Your task to perform on an android device: turn on javascript in the chrome app Image 0: 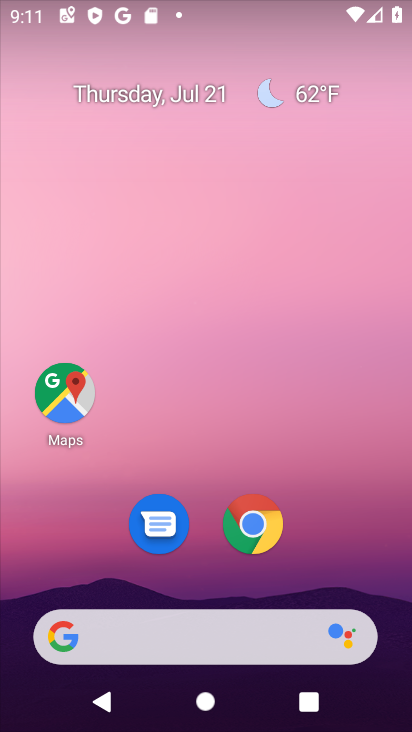
Step 0: click (246, 549)
Your task to perform on an android device: turn on javascript in the chrome app Image 1: 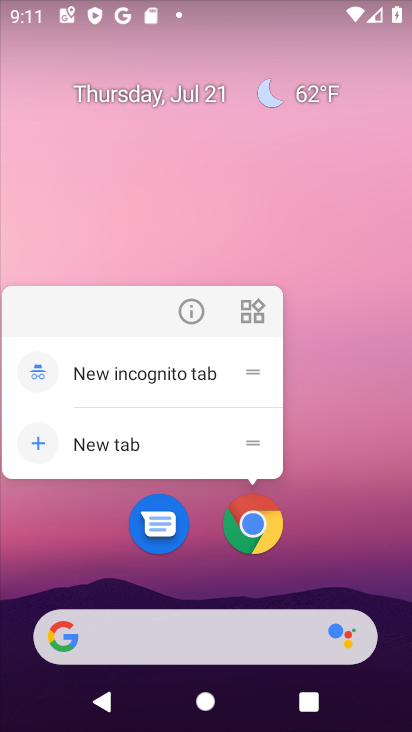
Step 1: click (259, 530)
Your task to perform on an android device: turn on javascript in the chrome app Image 2: 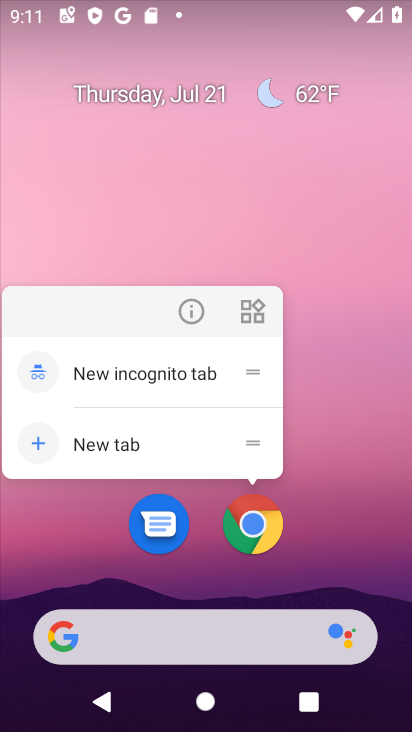
Step 2: click (259, 529)
Your task to perform on an android device: turn on javascript in the chrome app Image 3: 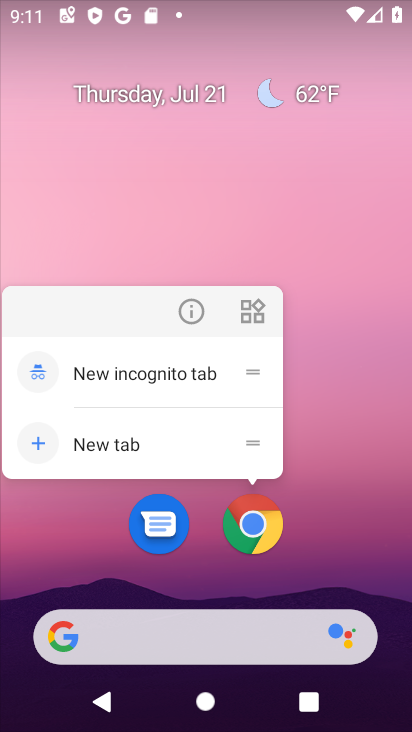
Step 3: click (259, 530)
Your task to perform on an android device: turn on javascript in the chrome app Image 4: 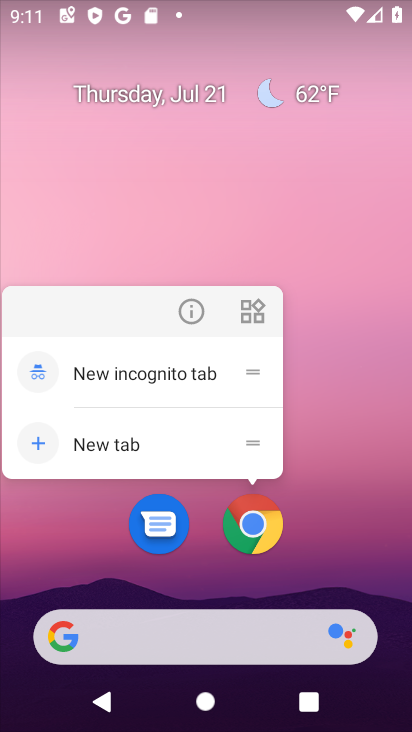
Step 4: click (250, 532)
Your task to perform on an android device: turn on javascript in the chrome app Image 5: 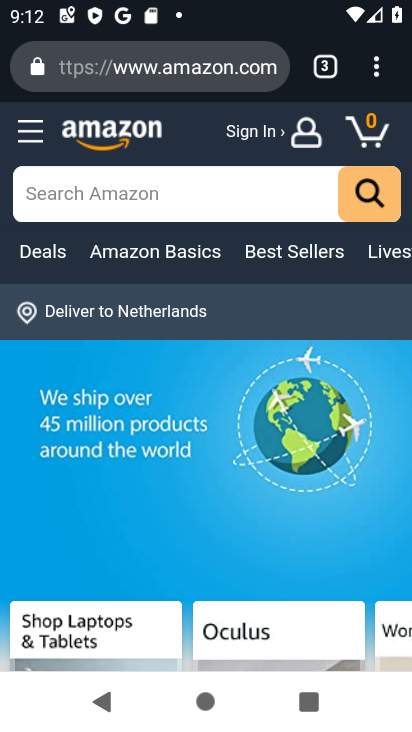
Step 5: drag from (378, 69) to (240, 535)
Your task to perform on an android device: turn on javascript in the chrome app Image 6: 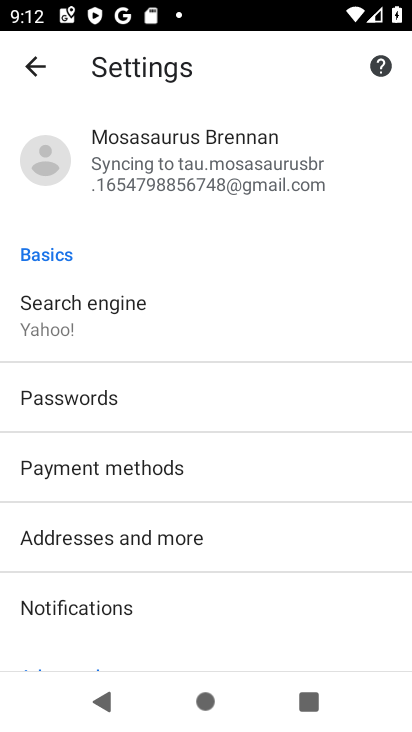
Step 6: drag from (209, 615) to (327, 223)
Your task to perform on an android device: turn on javascript in the chrome app Image 7: 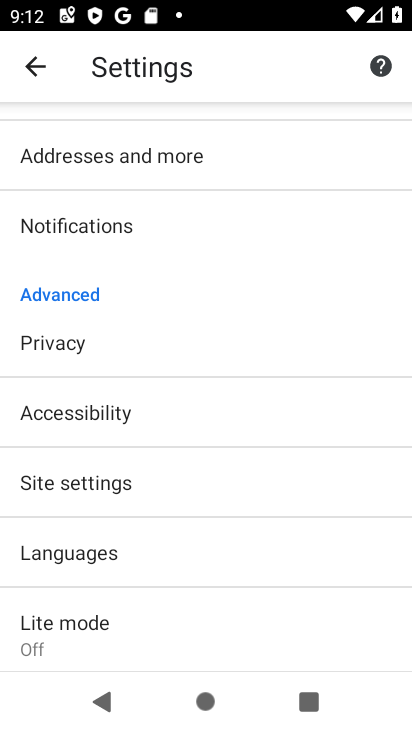
Step 7: click (111, 482)
Your task to perform on an android device: turn on javascript in the chrome app Image 8: 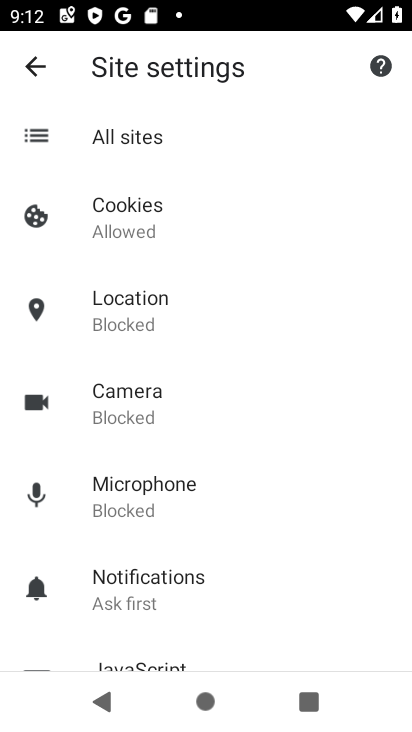
Step 8: drag from (227, 559) to (299, 223)
Your task to perform on an android device: turn on javascript in the chrome app Image 9: 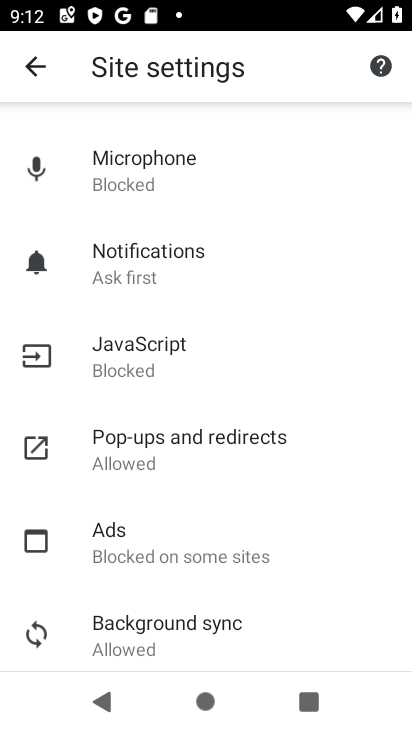
Step 9: click (174, 339)
Your task to perform on an android device: turn on javascript in the chrome app Image 10: 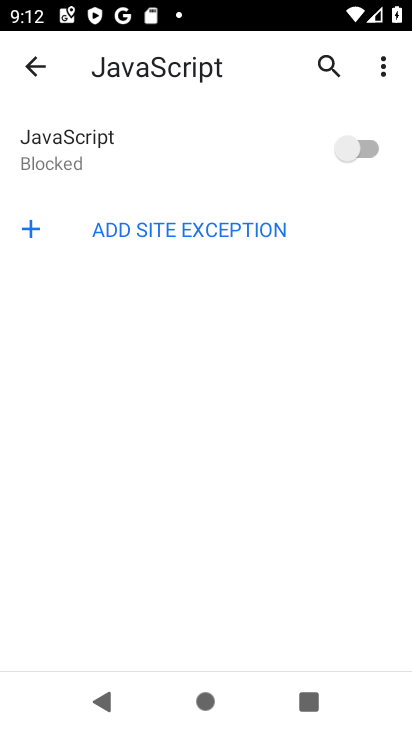
Step 10: click (368, 145)
Your task to perform on an android device: turn on javascript in the chrome app Image 11: 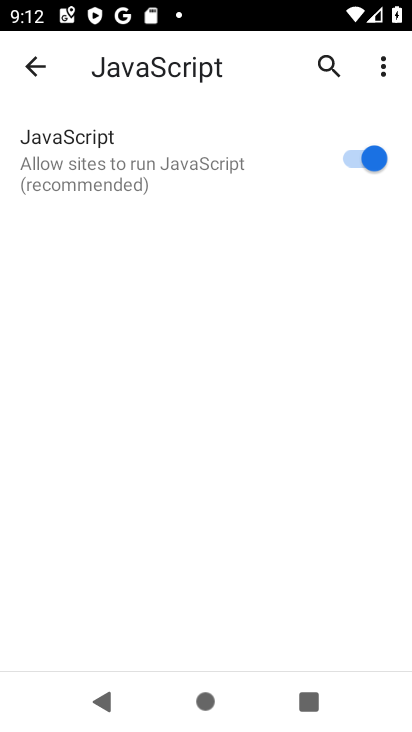
Step 11: task complete